Your task to perform on an android device: open chrome and create a bookmark for the current page Image 0: 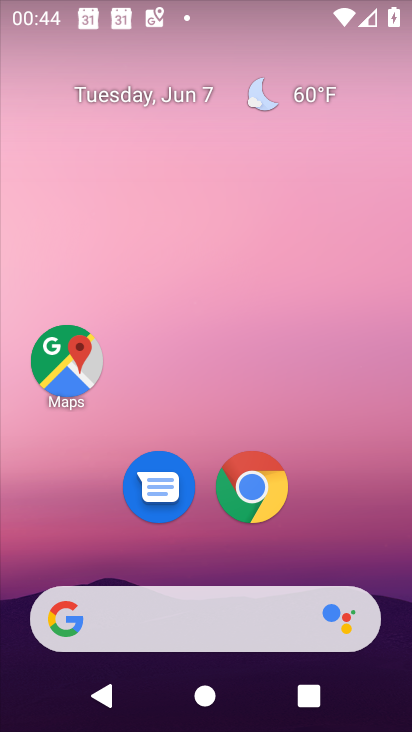
Step 0: click (262, 504)
Your task to perform on an android device: open chrome and create a bookmark for the current page Image 1: 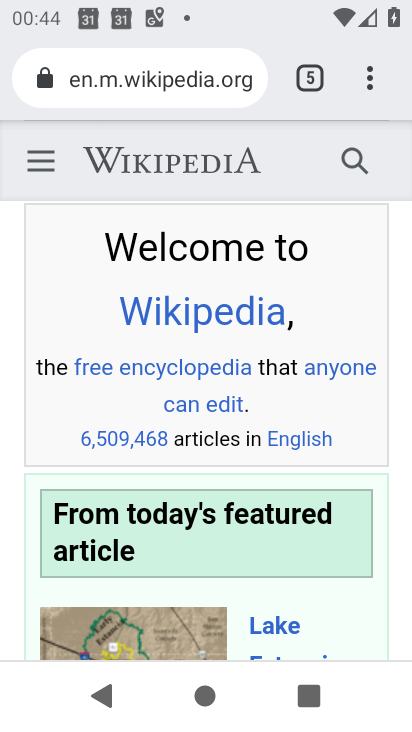
Step 1: click (373, 73)
Your task to perform on an android device: open chrome and create a bookmark for the current page Image 2: 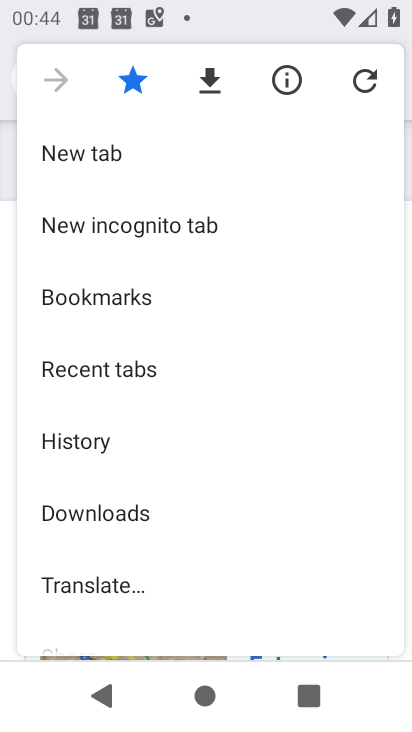
Step 2: task complete